Your task to perform on an android device: Go to wifi settings Image 0: 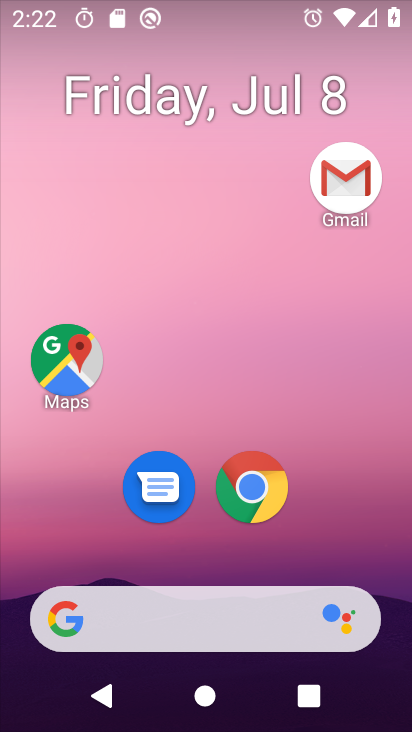
Step 0: drag from (372, 540) to (376, 144)
Your task to perform on an android device: Go to wifi settings Image 1: 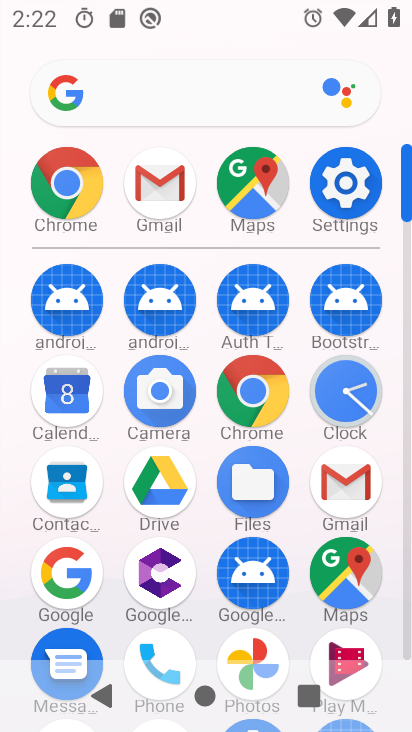
Step 1: click (348, 194)
Your task to perform on an android device: Go to wifi settings Image 2: 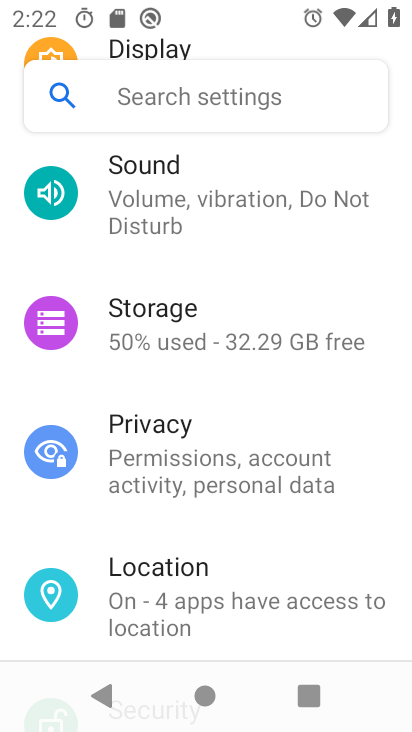
Step 2: drag from (366, 268) to (354, 391)
Your task to perform on an android device: Go to wifi settings Image 3: 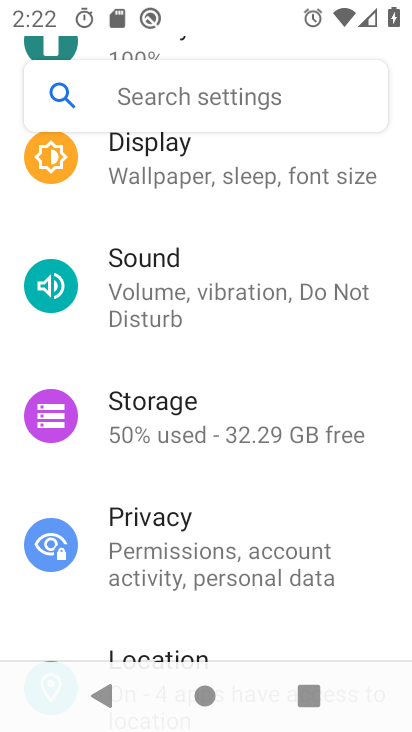
Step 3: drag from (363, 240) to (361, 378)
Your task to perform on an android device: Go to wifi settings Image 4: 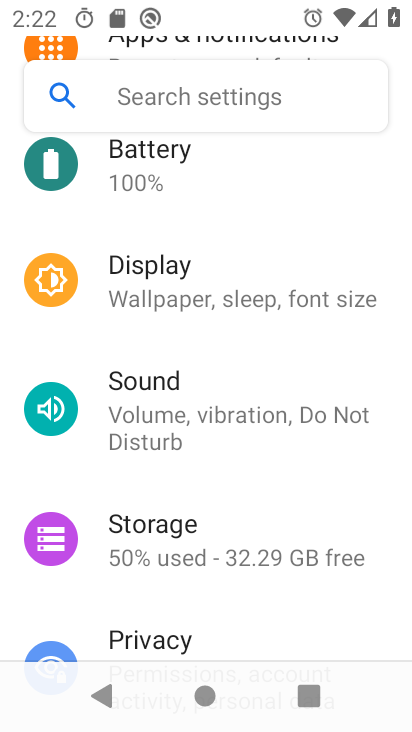
Step 4: drag from (356, 245) to (344, 408)
Your task to perform on an android device: Go to wifi settings Image 5: 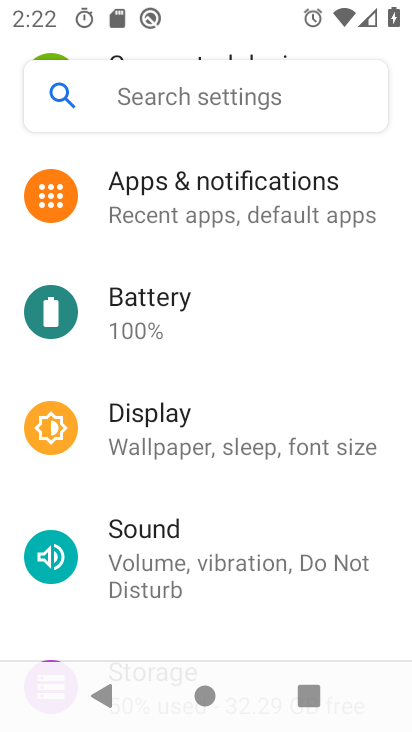
Step 5: drag from (340, 284) to (344, 407)
Your task to perform on an android device: Go to wifi settings Image 6: 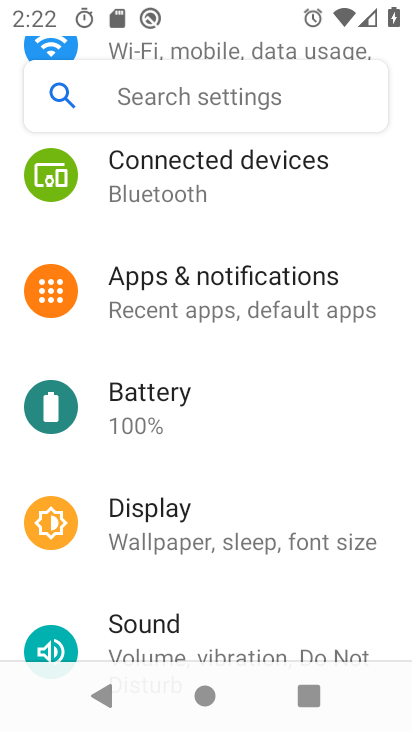
Step 6: drag from (351, 239) to (345, 376)
Your task to perform on an android device: Go to wifi settings Image 7: 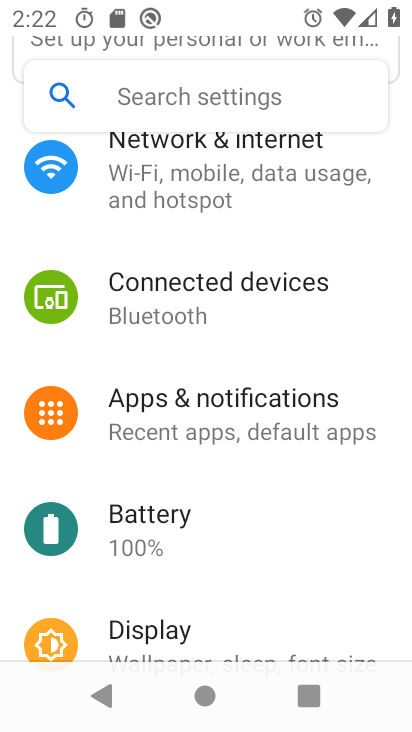
Step 7: drag from (359, 312) to (369, 447)
Your task to perform on an android device: Go to wifi settings Image 8: 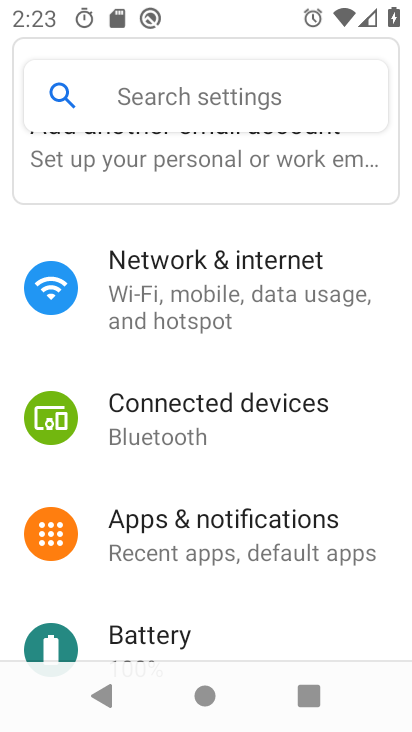
Step 8: drag from (369, 263) to (365, 449)
Your task to perform on an android device: Go to wifi settings Image 9: 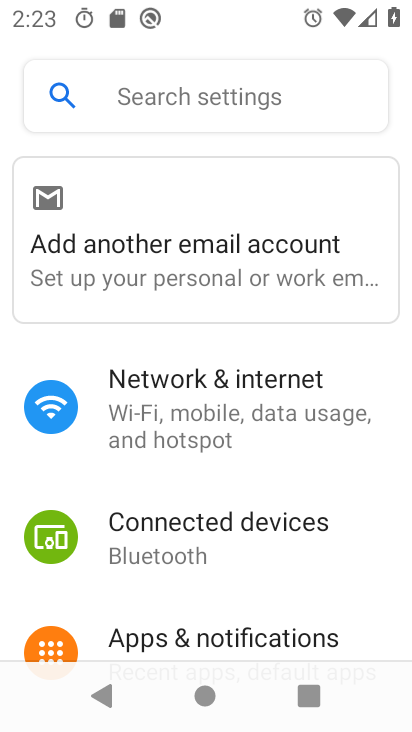
Step 9: click (230, 411)
Your task to perform on an android device: Go to wifi settings Image 10: 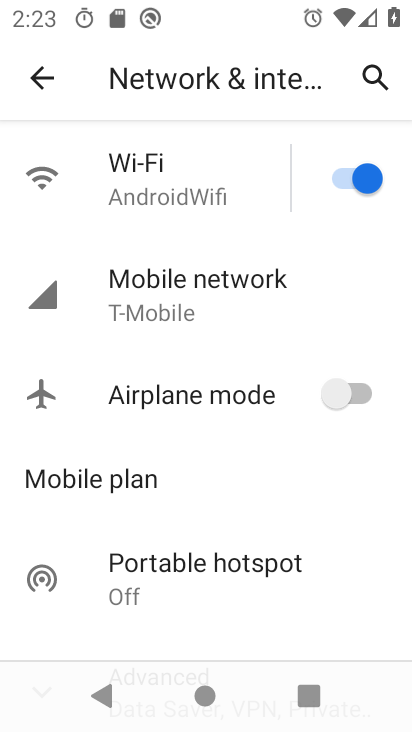
Step 10: drag from (271, 485) to (280, 358)
Your task to perform on an android device: Go to wifi settings Image 11: 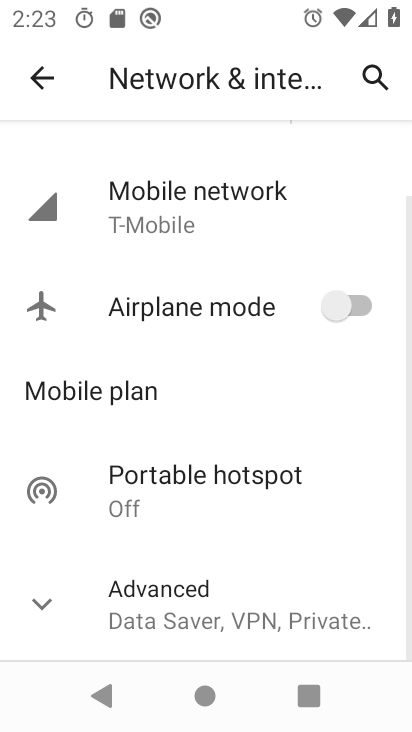
Step 11: drag from (323, 569) to (306, 382)
Your task to perform on an android device: Go to wifi settings Image 12: 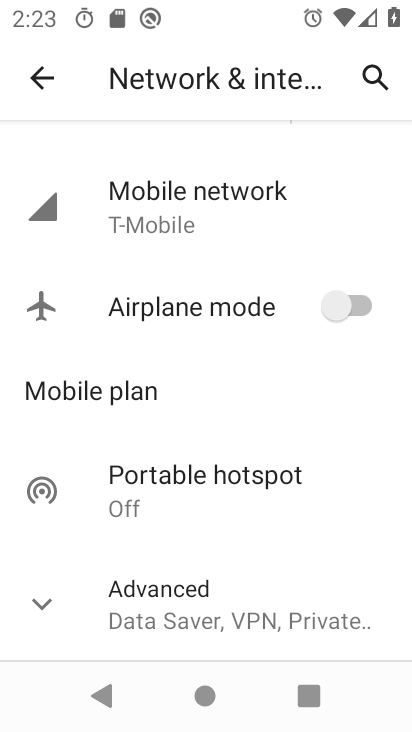
Step 12: drag from (292, 331) to (292, 539)
Your task to perform on an android device: Go to wifi settings Image 13: 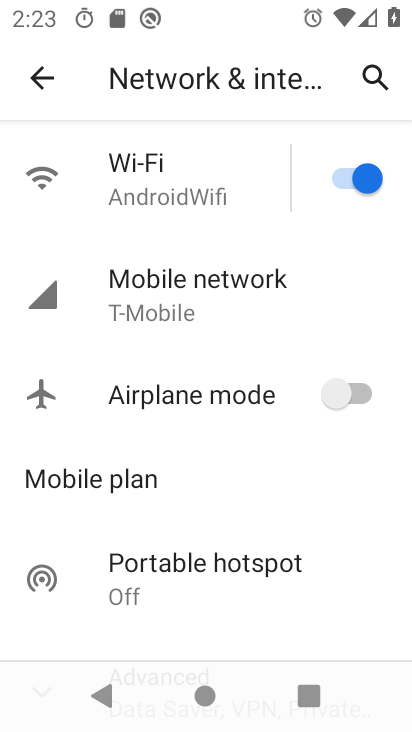
Step 13: drag from (270, 280) to (283, 469)
Your task to perform on an android device: Go to wifi settings Image 14: 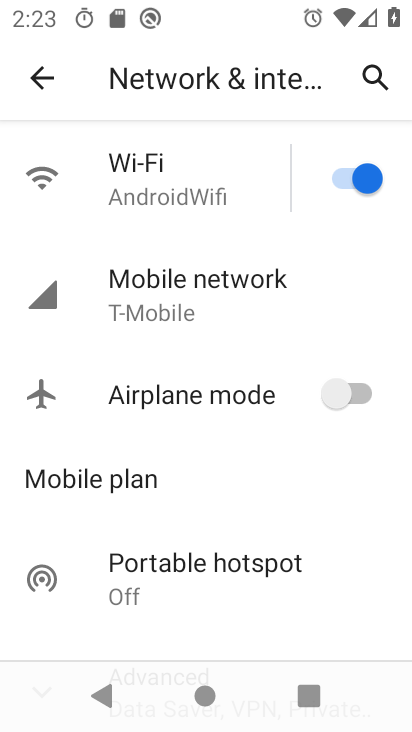
Step 14: click (205, 196)
Your task to perform on an android device: Go to wifi settings Image 15: 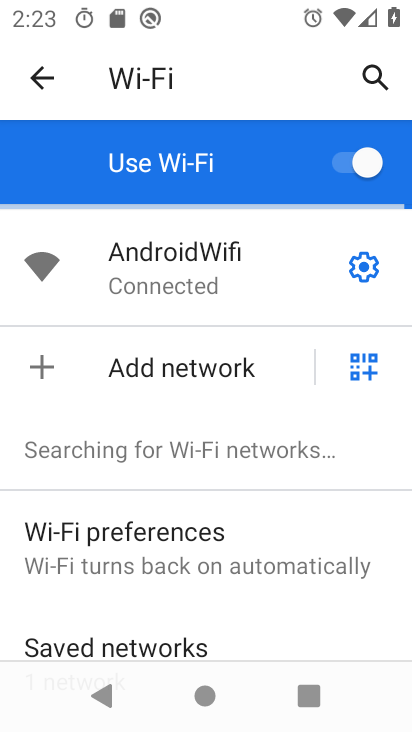
Step 15: task complete